Your task to perform on an android device: delete browsing data in the chrome app Image 0: 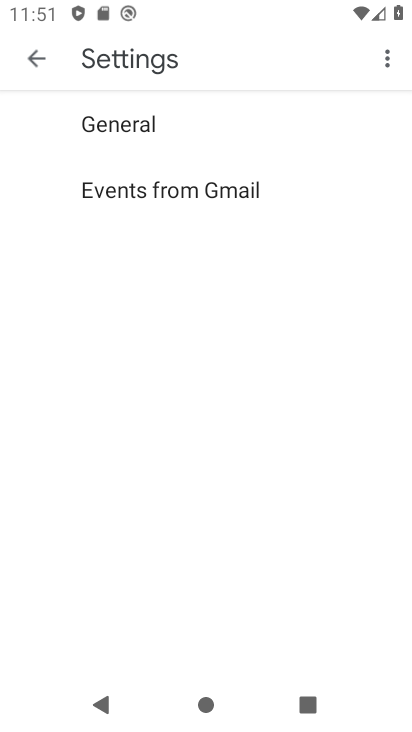
Step 0: press home button
Your task to perform on an android device: delete browsing data in the chrome app Image 1: 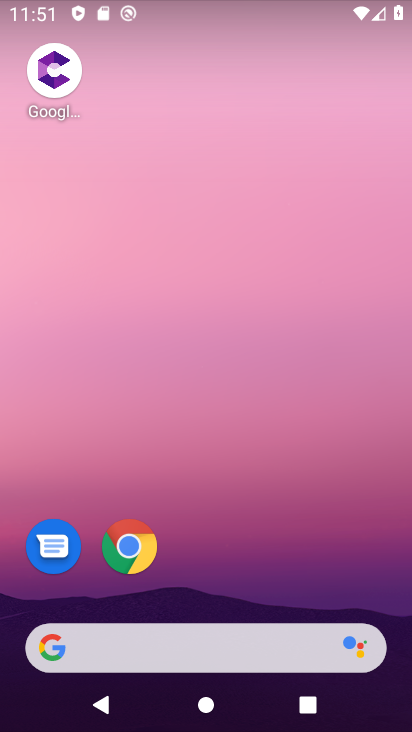
Step 1: drag from (367, 616) to (250, 3)
Your task to perform on an android device: delete browsing data in the chrome app Image 2: 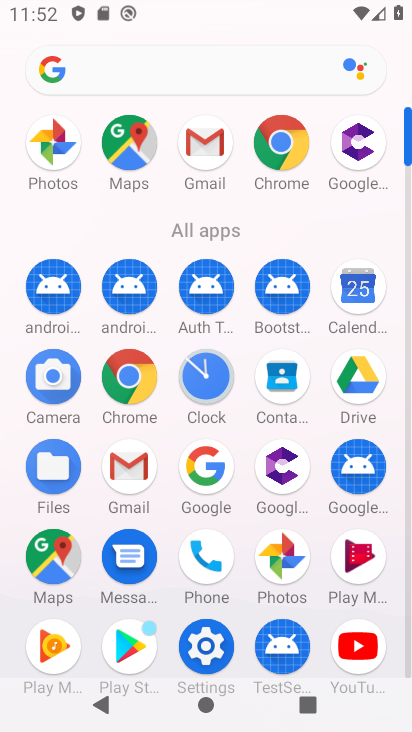
Step 2: click (120, 365)
Your task to perform on an android device: delete browsing data in the chrome app Image 3: 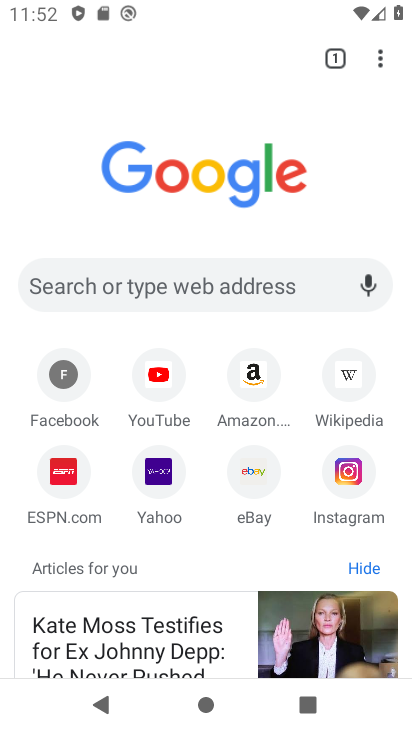
Step 3: click (378, 50)
Your task to perform on an android device: delete browsing data in the chrome app Image 4: 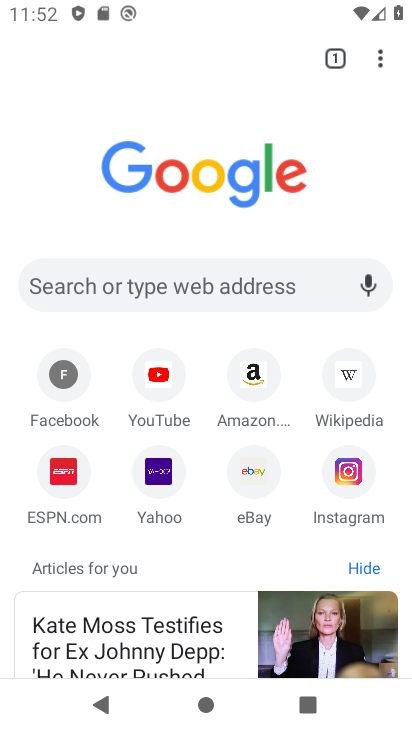
Step 4: click (386, 53)
Your task to perform on an android device: delete browsing data in the chrome app Image 5: 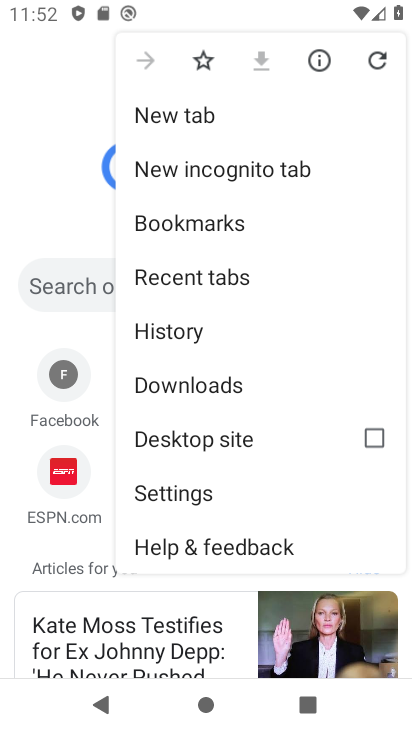
Step 5: click (234, 344)
Your task to perform on an android device: delete browsing data in the chrome app Image 6: 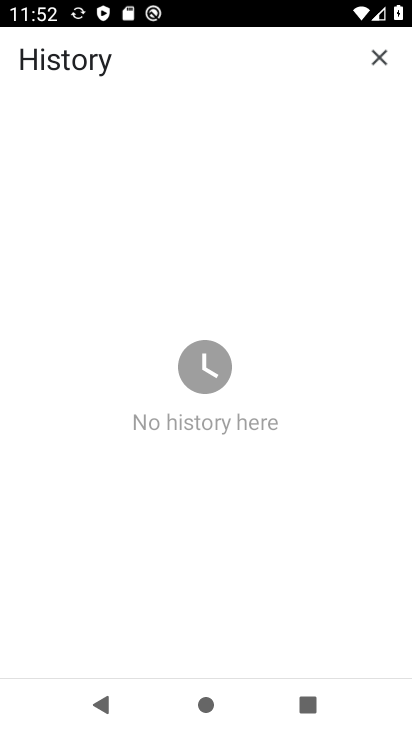
Step 6: task complete